Your task to perform on an android device: delete browsing data in the chrome app Image 0: 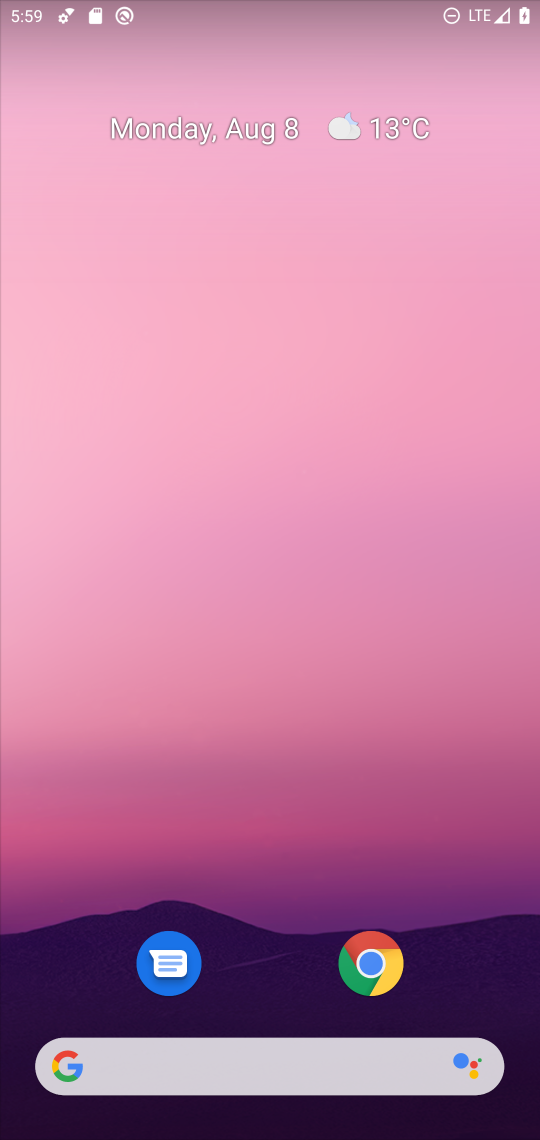
Step 0: press home button
Your task to perform on an android device: delete browsing data in the chrome app Image 1: 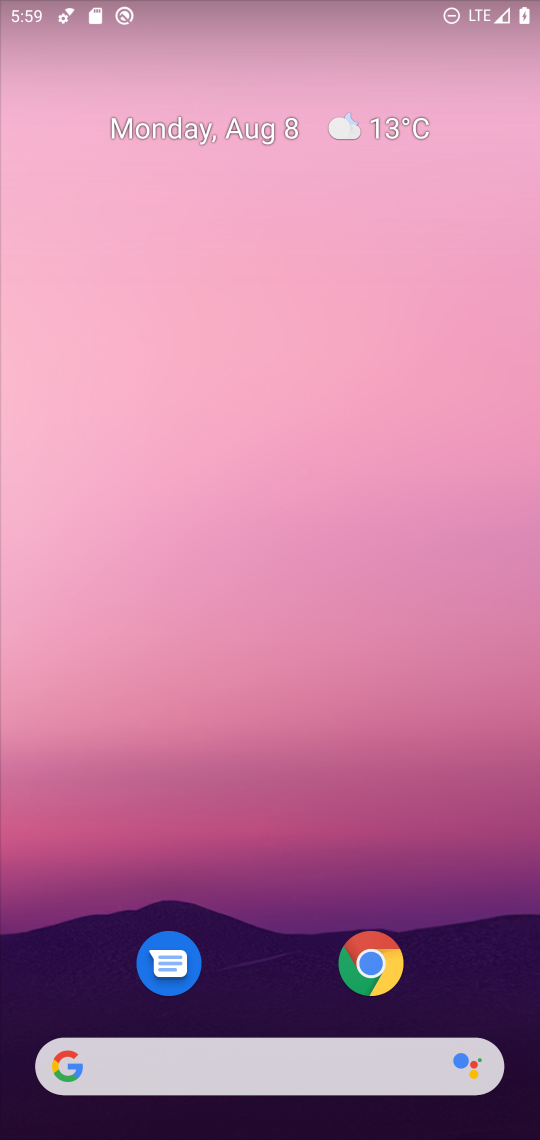
Step 1: click (358, 952)
Your task to perform on an android device: delete browsing data in the chrome app Image 2: 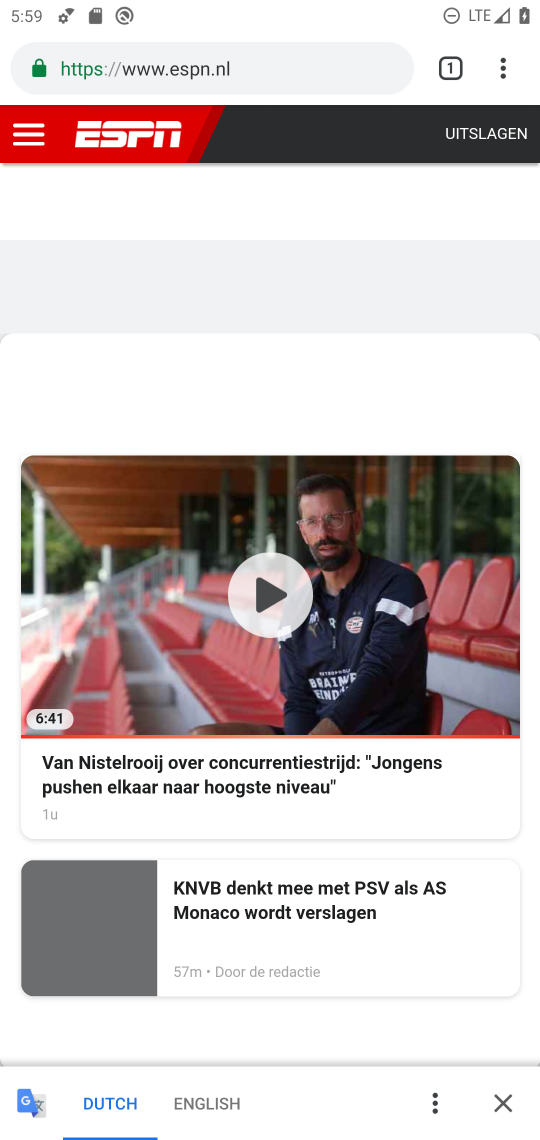
Step 2: click (494, 78)
Your task to perform on an android device: delete browsing data in the chrome app Image 3: 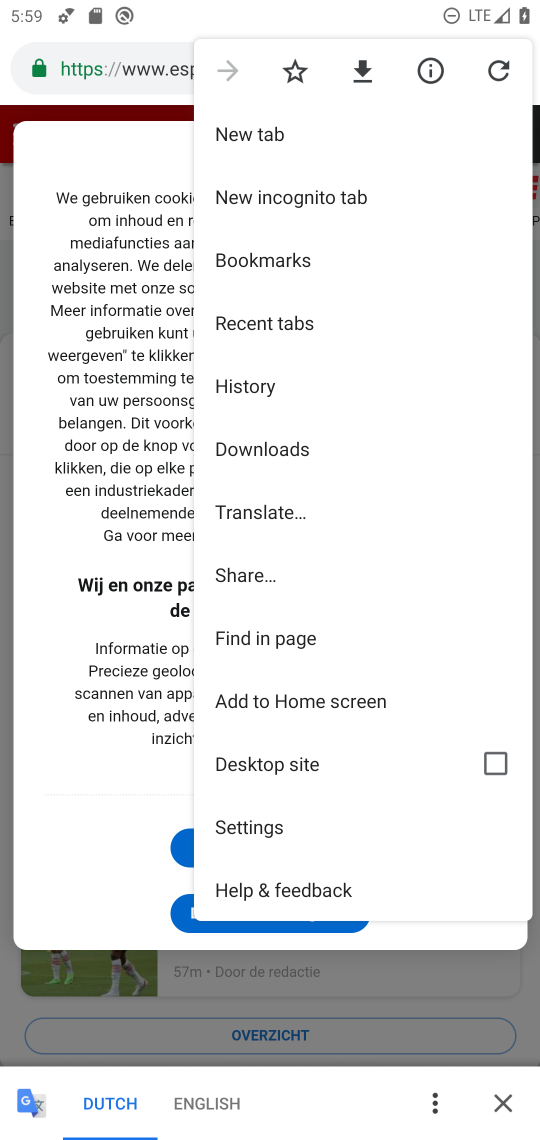
Step 3: click (252, 384)
Your task to perform on an android device: delete browsing data in the chrome app Image 4: 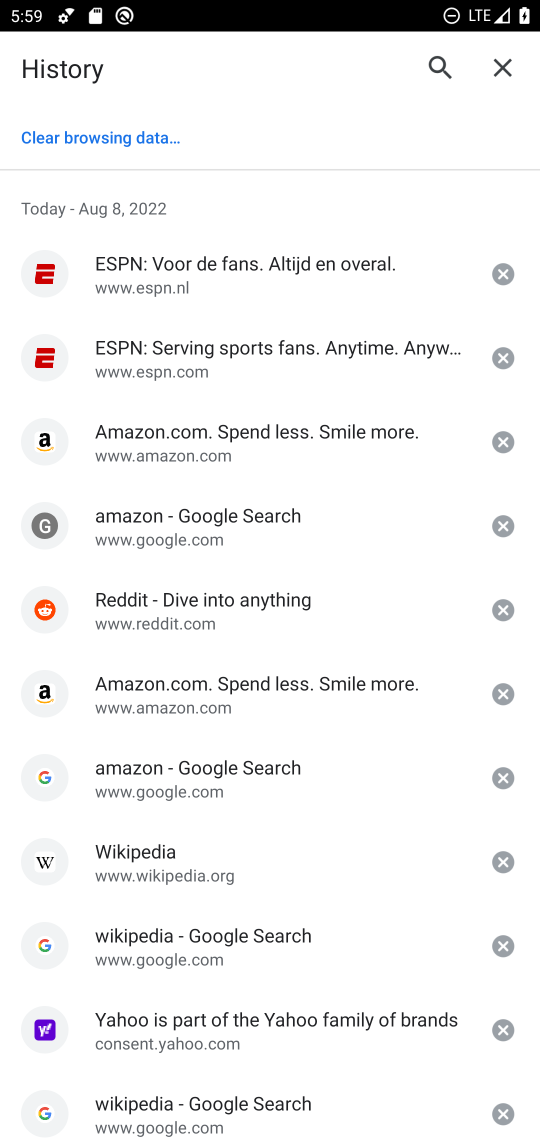
Step 4: click (160, 142)
Your task to perform on an android device: delete browsing data in the chrome app Image 5: 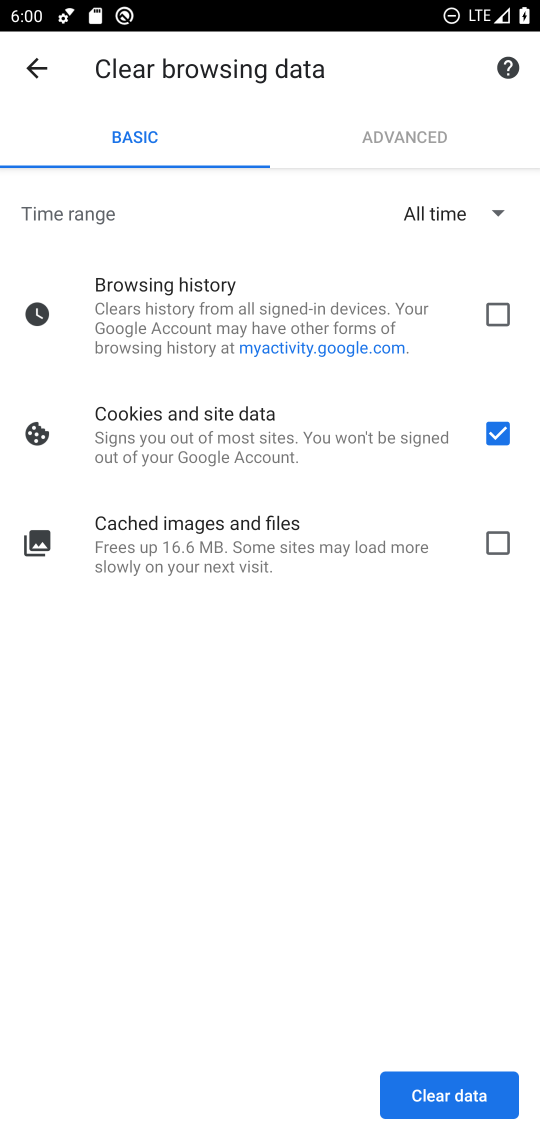
Step 5: click (502, 303)
Your task to perform on an android device: delete browsing data in the chrome app Image 6: 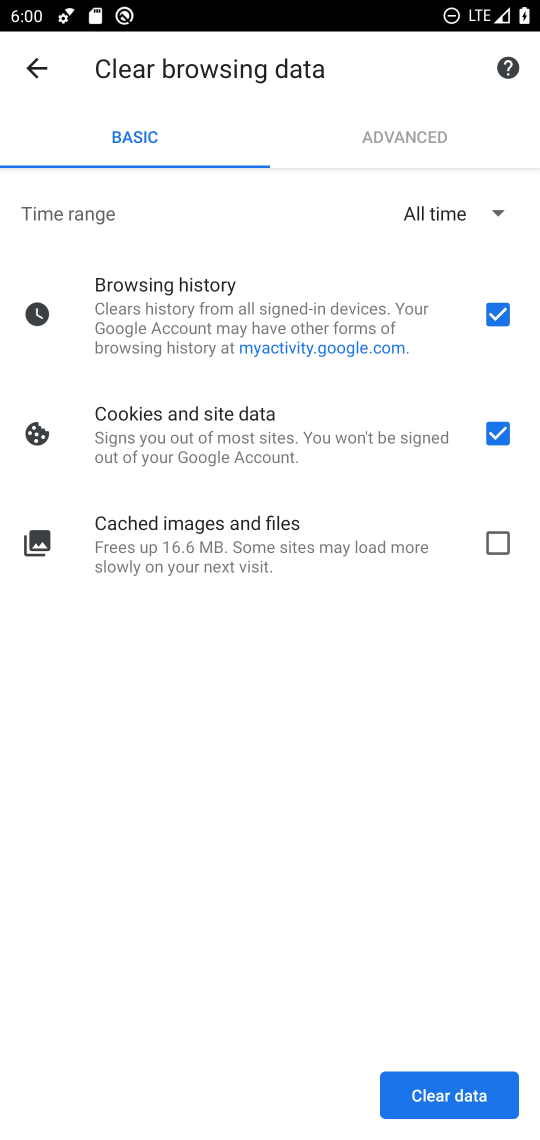
Step 6: click (487, 526)
Your task to perform on an android device: delete browsing data in the chrome app Image 7: 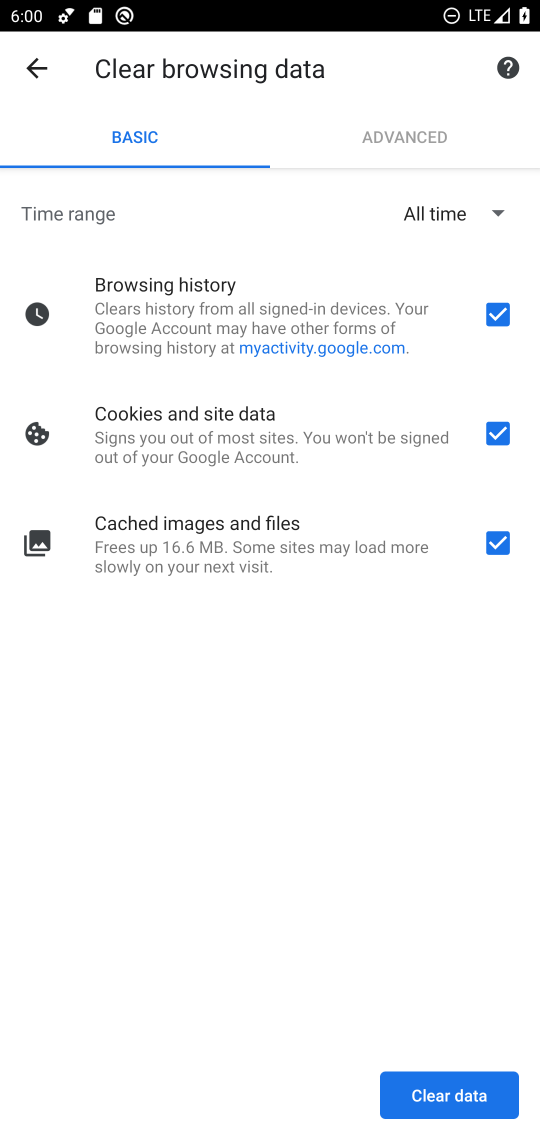
Step 7: click (462, 1075)
Your task to perform on an android device: delete browsing data in the chrome app Image 8: 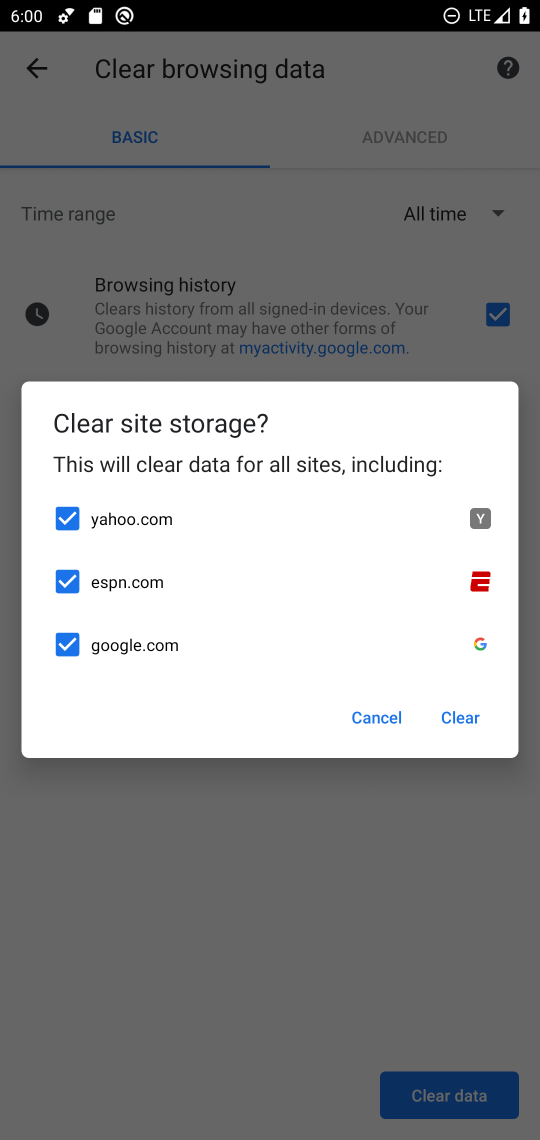
Step 8: click (460, 701)
Your task to perform on an android device: delete browsing data in the chrome app Image 9: 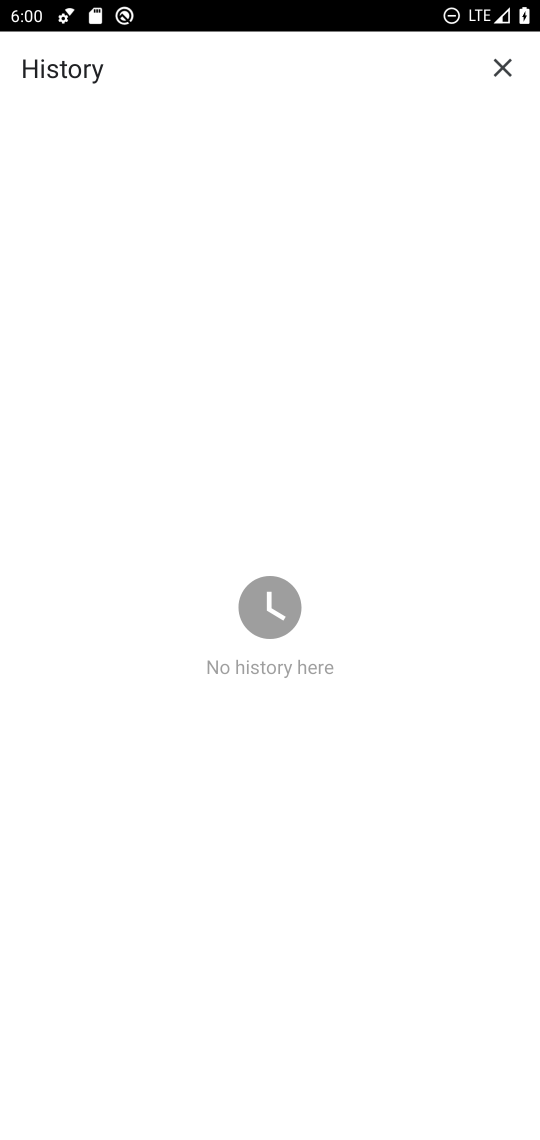
Step 9: task complete